Your task to perform on an android device: change keyboard looks Image 0: 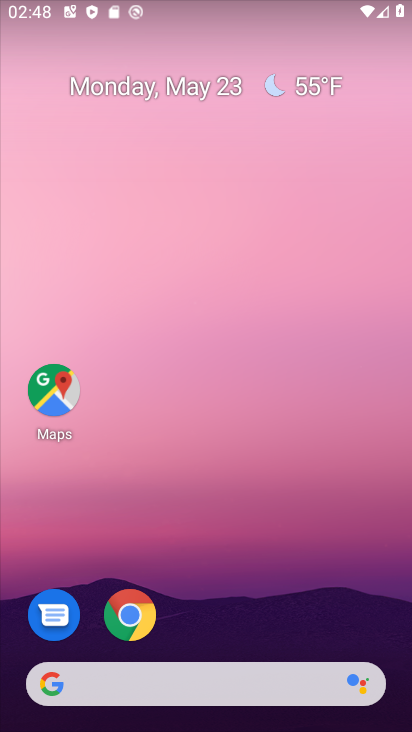
Step 0: drag from (373, 615) to (353, 104)
Your task to perform on an android device: change keyboard looks Image 1: 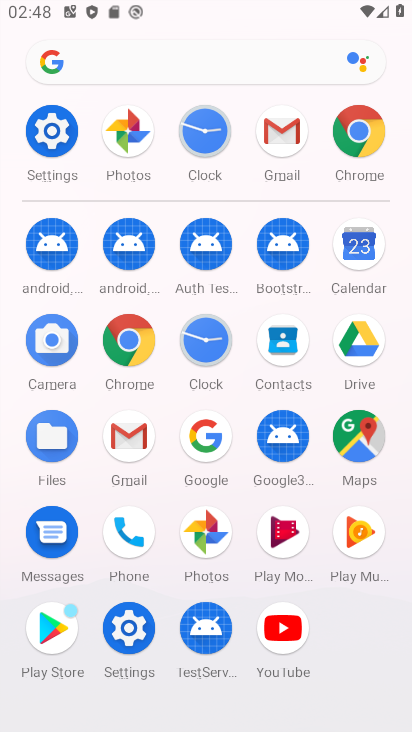
Step 1: click (131, 629)
Your task to perform on an android device: change keyboard looks Image 2: 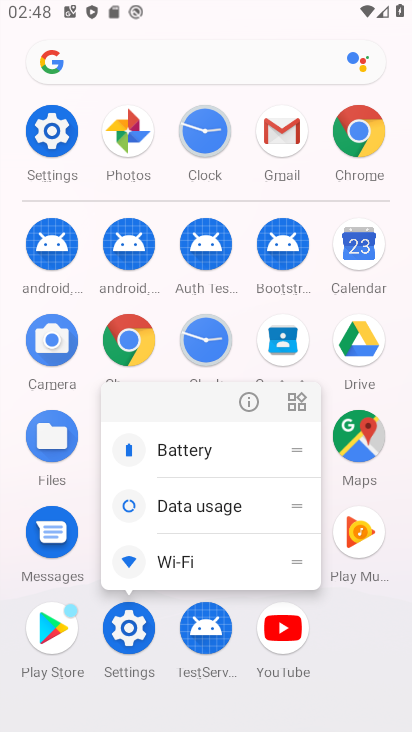
Step 2: click (131, 629)
Your task to perform on an android device: change keyboard looks Image 3: 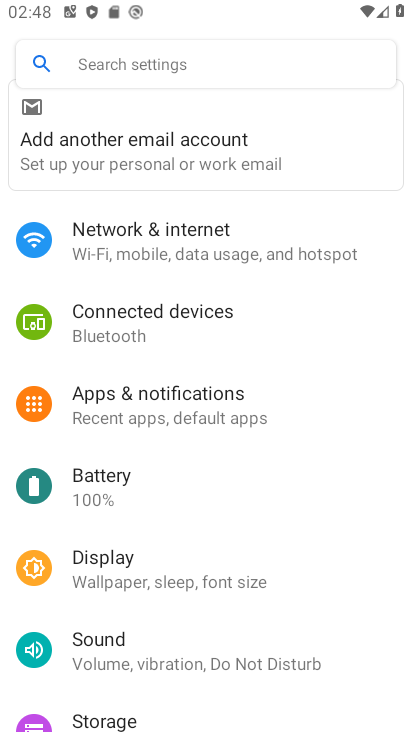
Step 3: drag from (342, 587) to (345, 497)
Your task to perform on an android device: change keyboard looks Image 4: 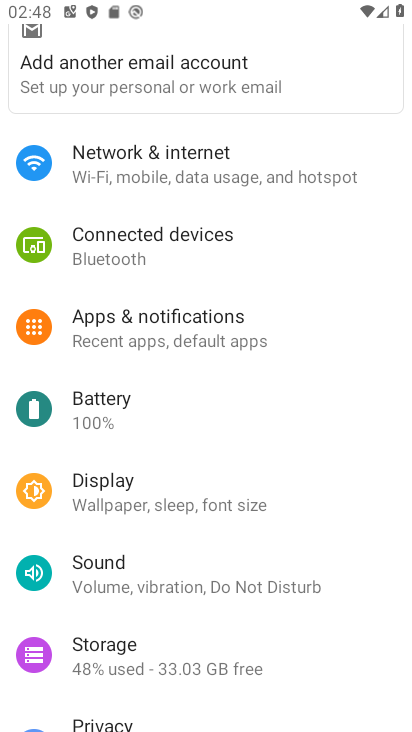
Step 4: drag from (359, 641) to (364, 507)
Your task to perform on an android device: change keyboard looks Image 5: 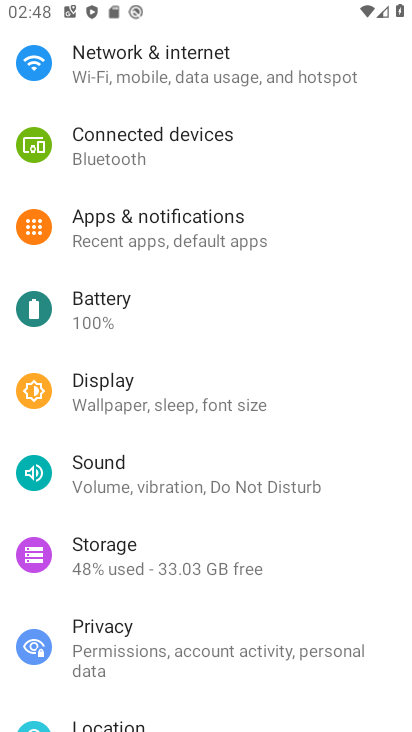
Step 5: drag from (354, 679) to (344, 557)
Your task to perform on an android device: change keyboard looks Image 6: 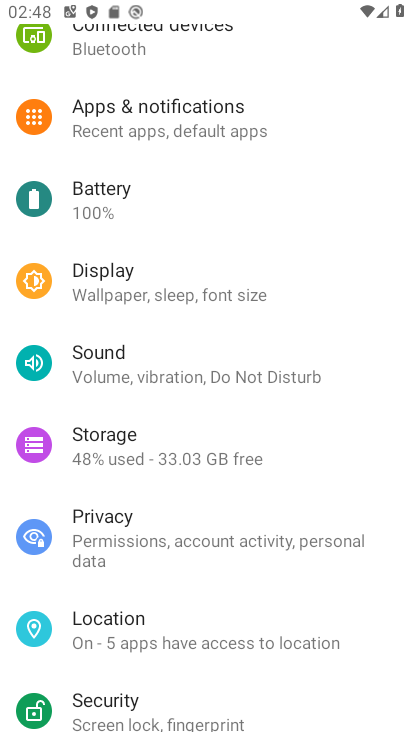
Step 6: drag from (366, 682) to (391, 549)
Your task to perform on an android device: change keyboard looks Image 7: 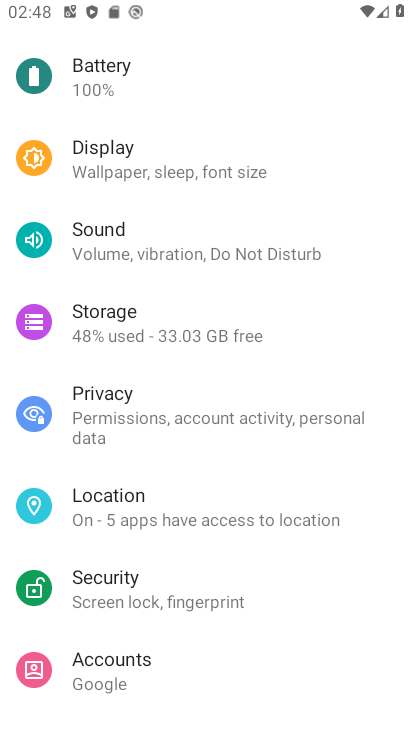
Step 7: drag from (369, 661) to (365, 526)
Your task to perform on an android device: change keyboard looks Image 8: 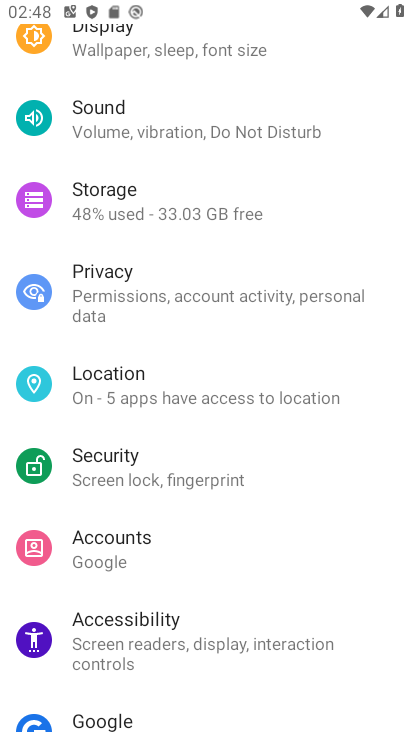
Step 8: drag from (349, 671) to (351, 522)
Your task to perform on an android device: change keyboard looks Image 9: 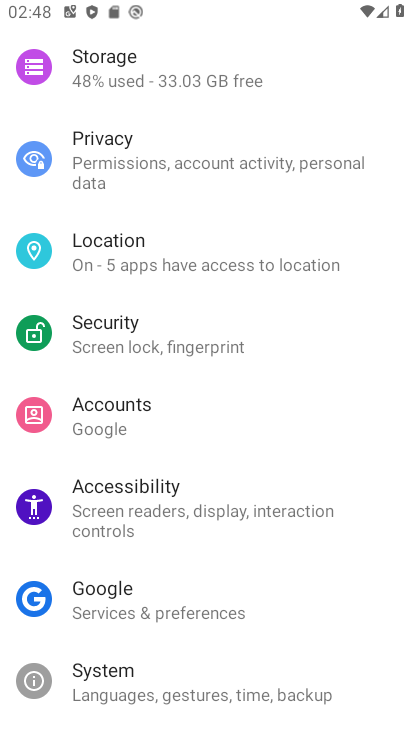
Step 9: drag from (353, 664) to (356, 562)
Your task to perform on an android device: change keyboard looks Image 10: 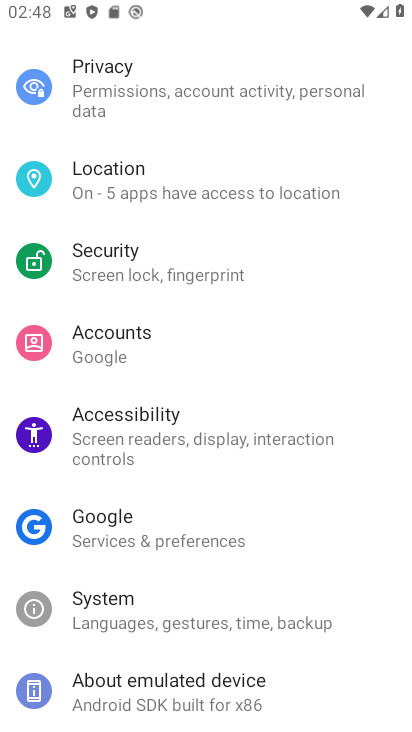
Step 10: drag from (365, 680) to (364, 581)
Your task to perform on an android device: change keyboard looks Image 11: 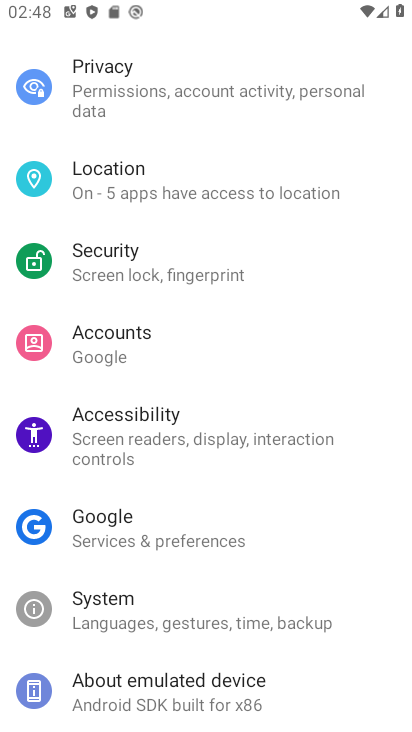
Step 11: click (309, 616)
Your task to perform on an android device: change keyboard looks Image 12: 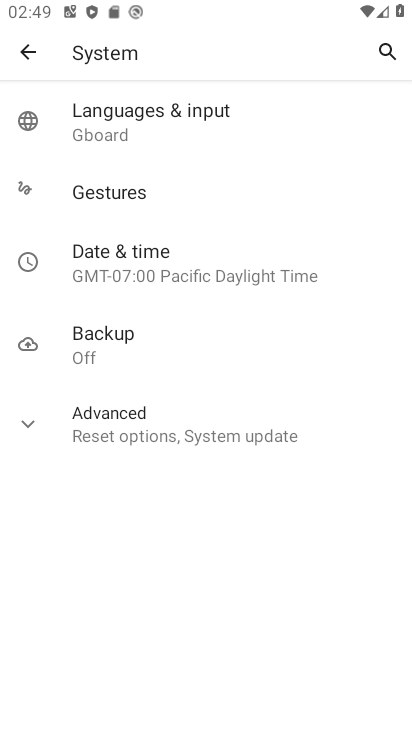
Step 12: click (172, 131)
Your task to perform on an android device: change keyboard looks Image 13: 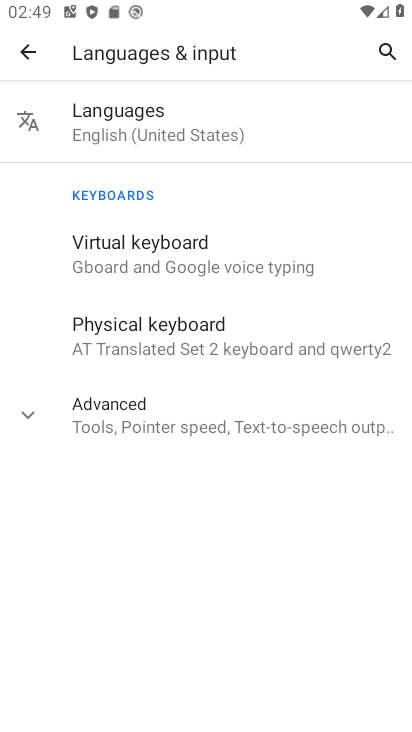
Step 13: click (191, 268)
Your task to perform on an android device: change keyboard looks Image 14: 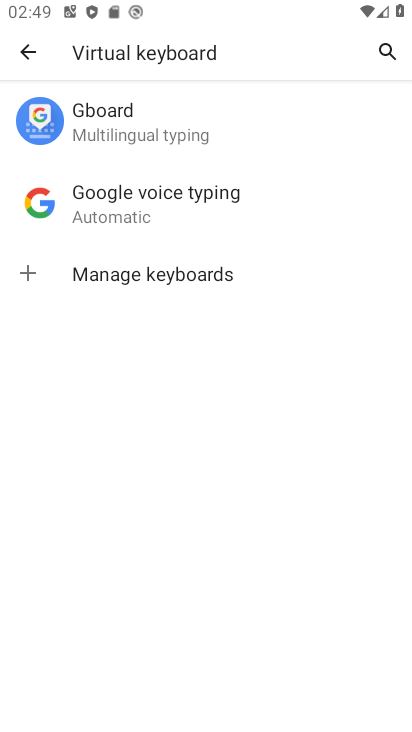
Step 14: click (168, 138)
Your task to perform on an android device: change keyboard looks Image 15: 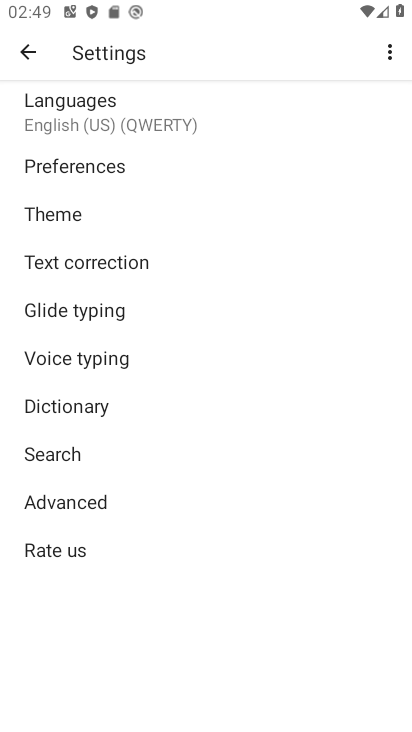
Step 15: click (73, 220)
Your task to perform on an android device: change keyboard looks Image 16: 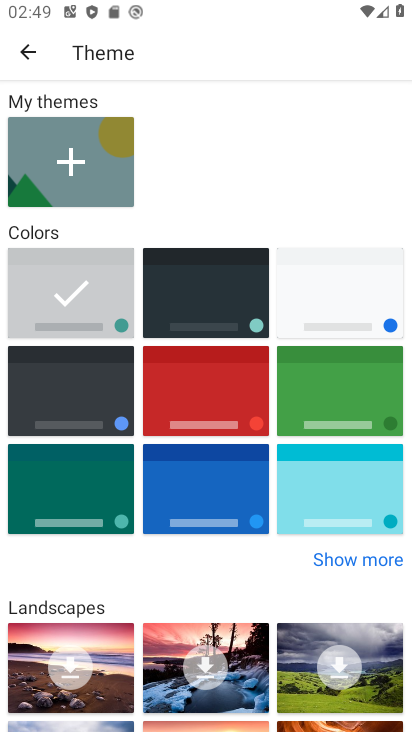
Step 16: click (215, 411)
Your task to perform on an android device: change keyboard looks Image 17: 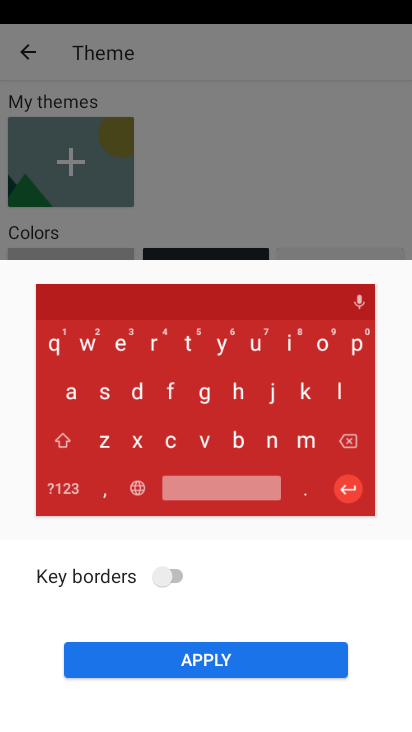
Step 17: click (243, 670)
Your task to perform on an android device: change keyboard looks Image 18: 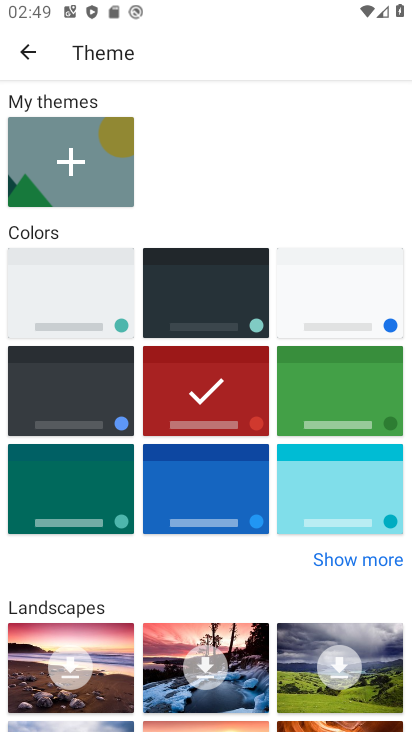
Step 18: task complete